Your task to perform on an android device: Is it going to rain today? Image 0: 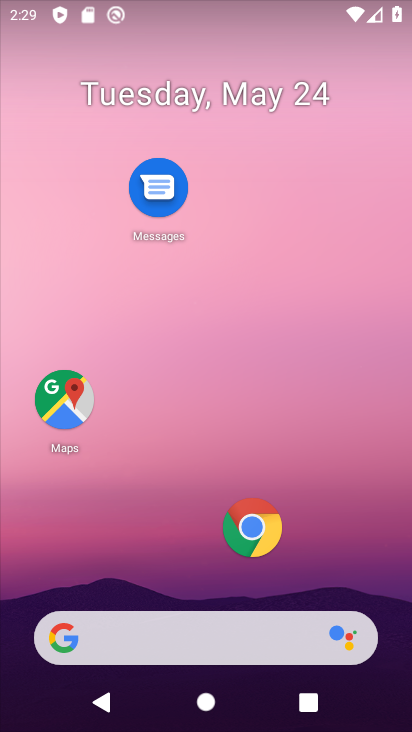
Step 0: click (255, 526)
Your task to perform on an android device: Is it going to rain today? Image 1: 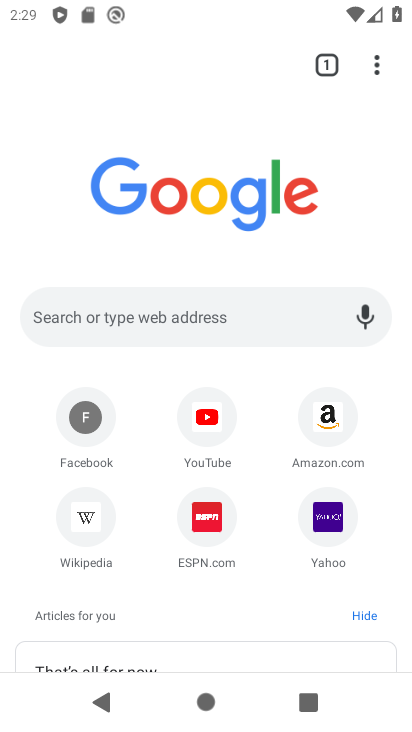
Step 1: click (167, 325)
Your task to perform on an android device: Is it going to rain today? Image 2: 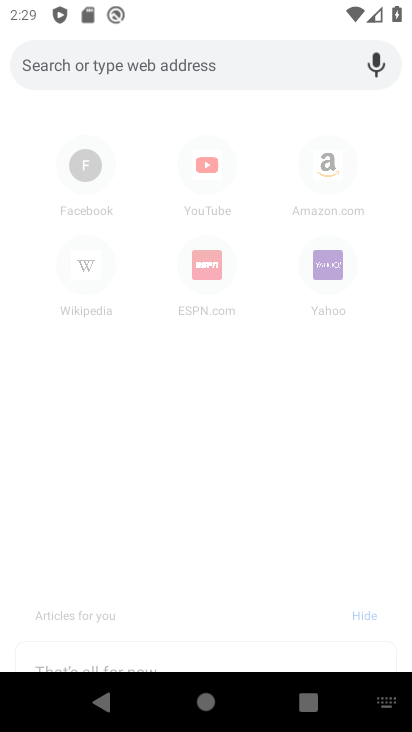
Step 2: type "Is it going to rain today?"
Your task to perform on an android device: Is it going to rain today? Image 3: 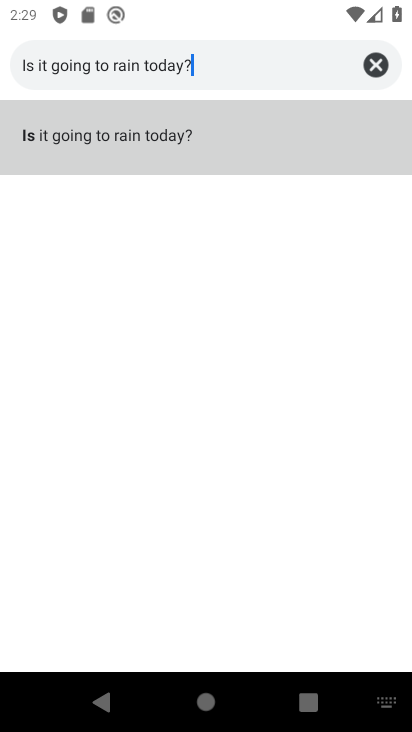
Step 3: click (111, 154)
Your task to perform on an android device: Is it going to rain today? Image 4: 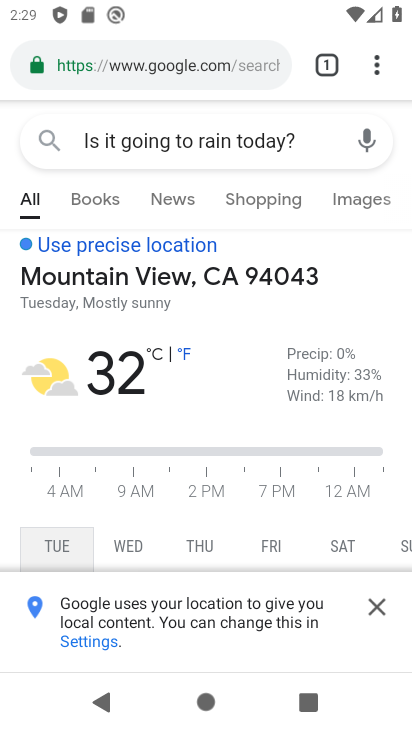
Step 4: task complete